Your task to perform on an android device: turn notification dots on Image 0: 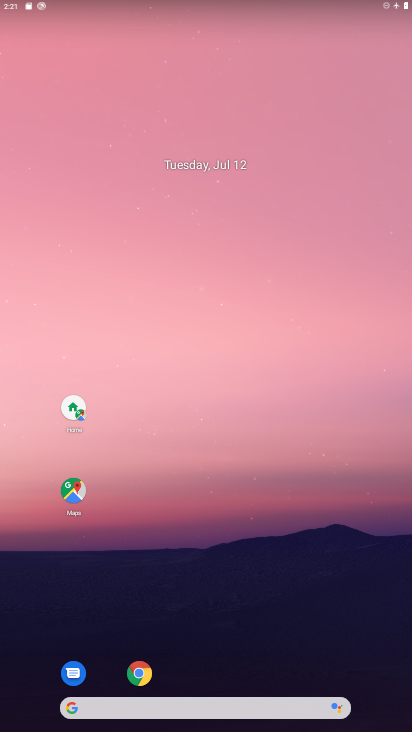
Step 0: drag from (243, 571) to (243, 147)
Your task to perform on an android device: turn notification dots on Image 1: 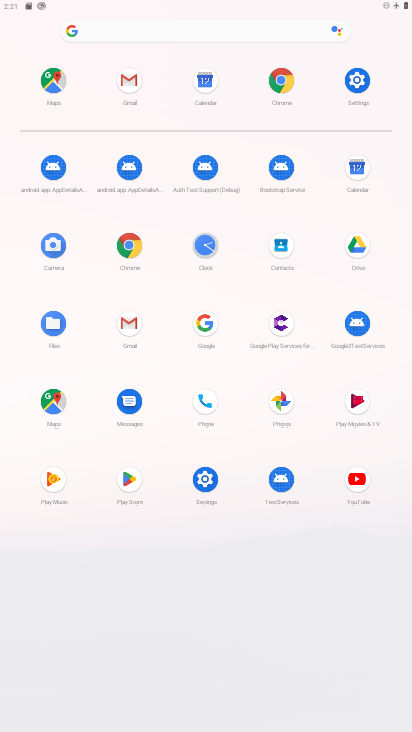
Step 1: click (361, 71)
Your task to perform on an android device: turn notification dots on Image 2: 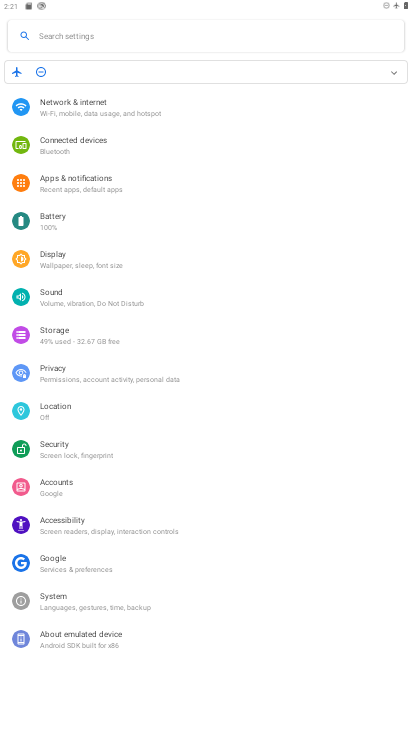
Step 2: click (144, 34)
Your task to perform on an android device: turn notification dots on Image 3: 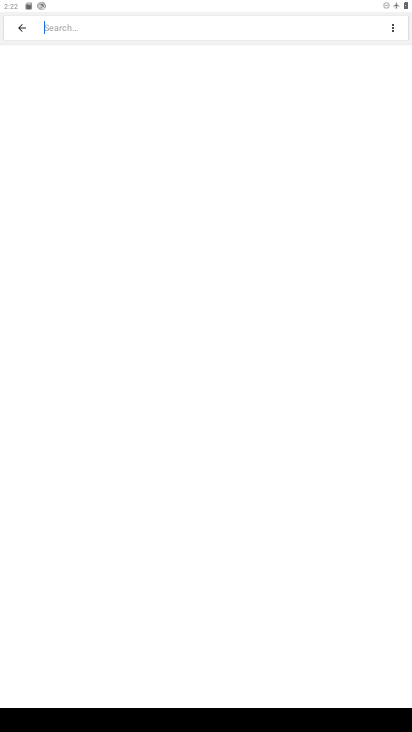
Step 3: type " notification dots "
Your task to perform on an android device: turn notification dots on Image 4: 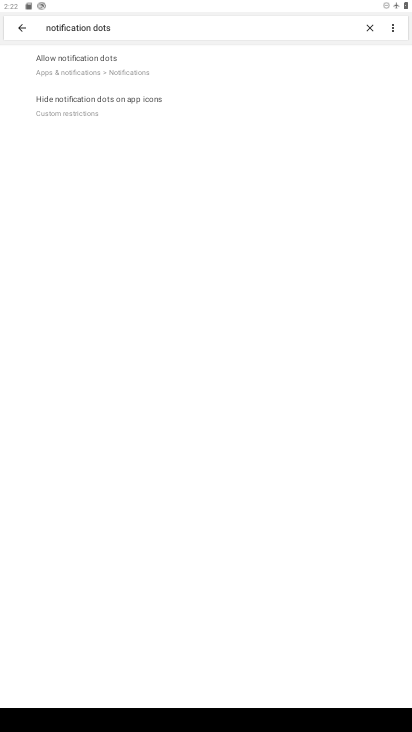
Step 4: click (122, 53)
Your task to perform on an android device: turn notification dots on Image 5: 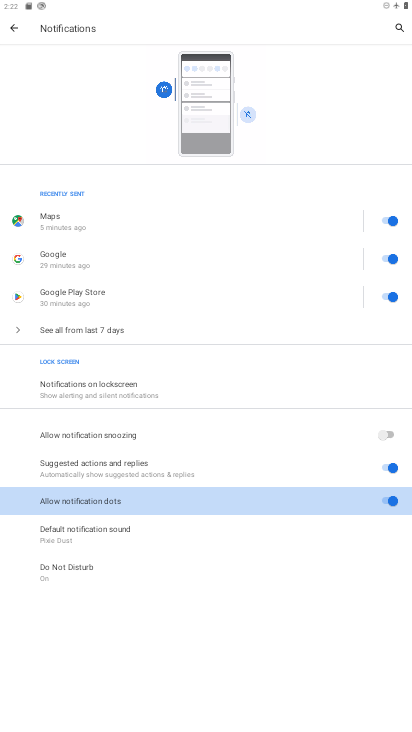
Step 5: task complete